Your task to perform on an android device: Go to network settings Image 0: 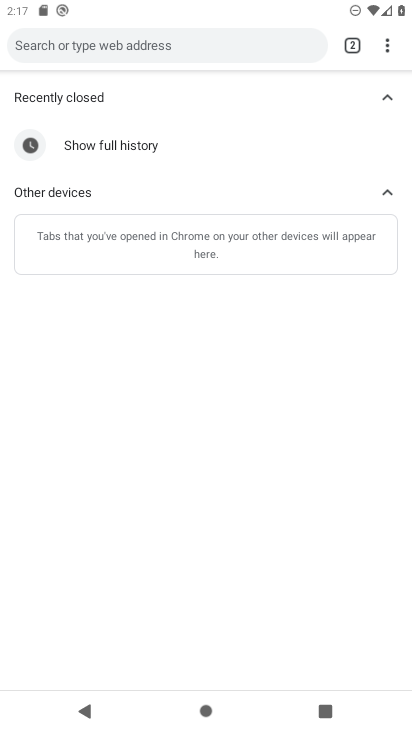
Step 0: press home button
Your task to perform on an android device: Go to network settings Image 1: 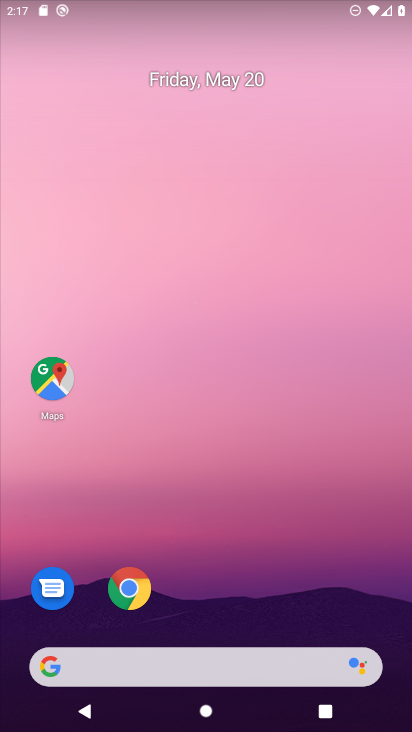
Step 1: drag from (378, 622) to (325, 94)
Your task to perform on an android device: Go to network settings Image 2: 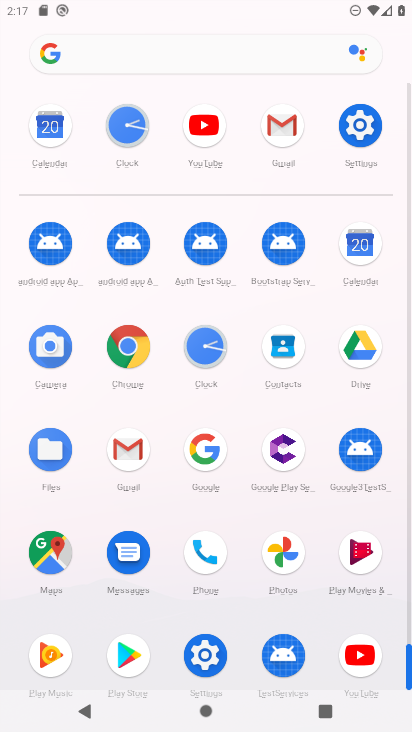
Step 2: click (206, 656)
Your task to perform on an android device: Go to network settings Image 3: 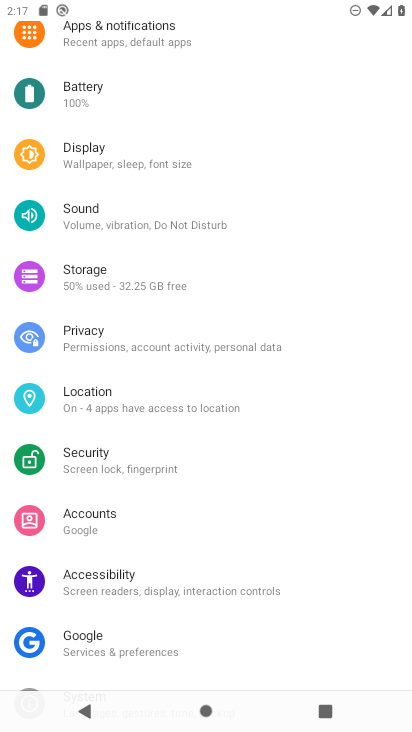
Step 3: drag from (317, 125) to (322, 409)
Your task to perform on an android device: Go to network settings Image 4: 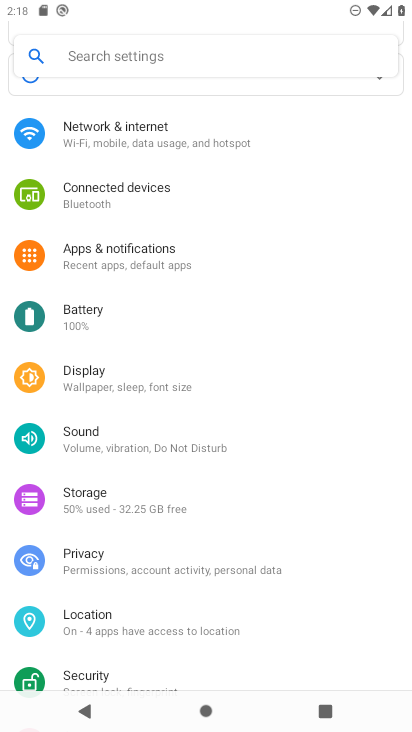
Step 4: click (112, 128)
Your task to perform on an android device: Go to network settings Image 5: 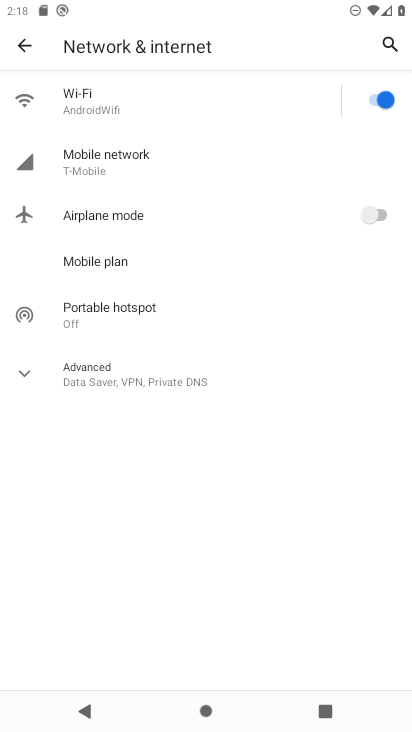
Step 5: click (89, 164)
Your task to perform on an android device: Go to network settings Image 6: 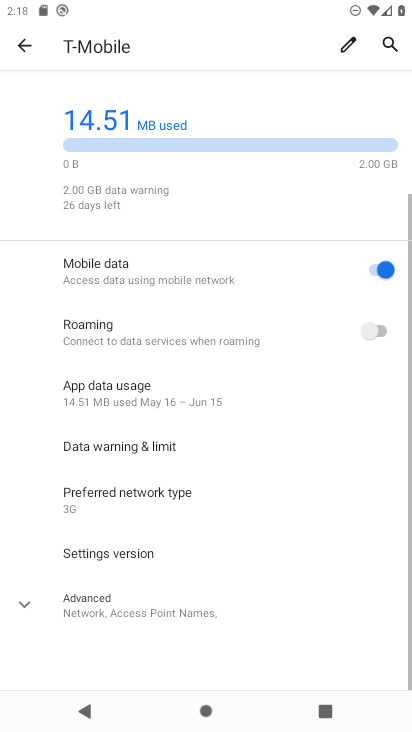
Step 6: drag from (276, 517) to (238, 247)
Your task to perform on an android device: Go to network settings Image 7: 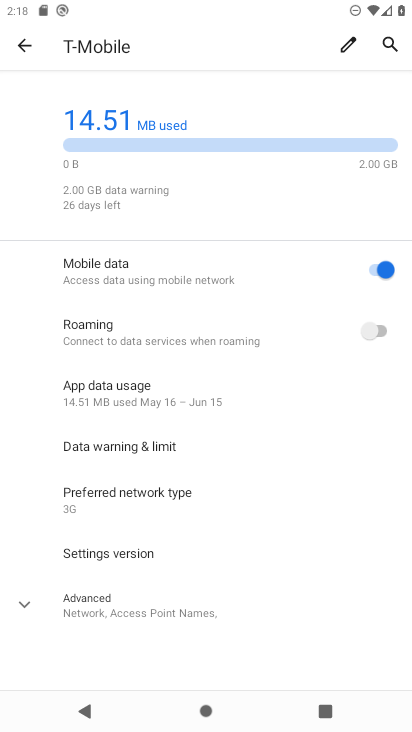
Step 7: click (22, 603)
Your task to perform on an android device: Go to network settings Image 8: 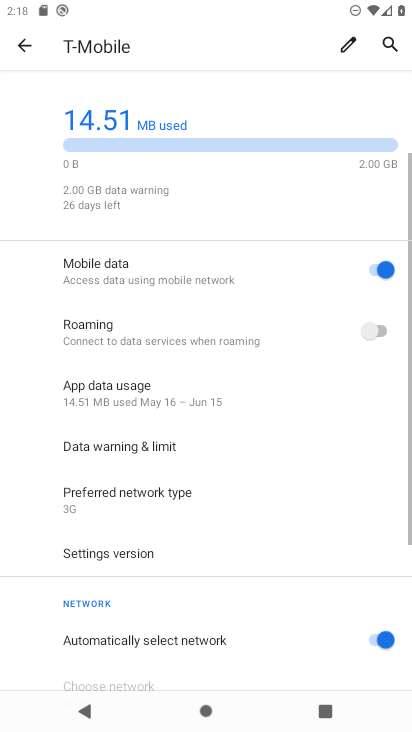
Step 8: task complete